Your task to perform on an android device: Open settings on Google Maps Image 0: 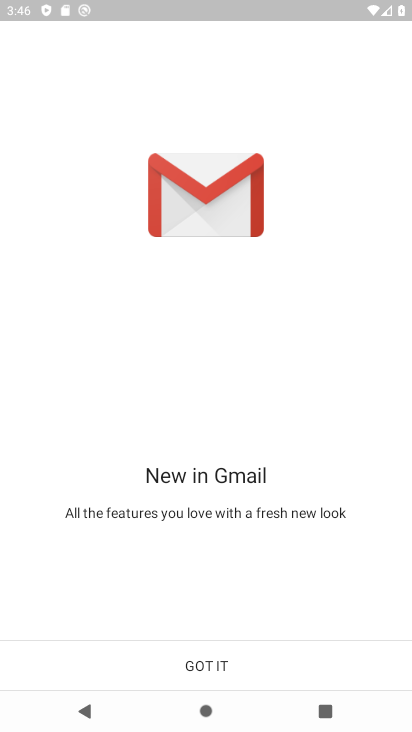
Step 0: press home button
Your task to perform on an android device: Open settings on Google Maps Image 1: 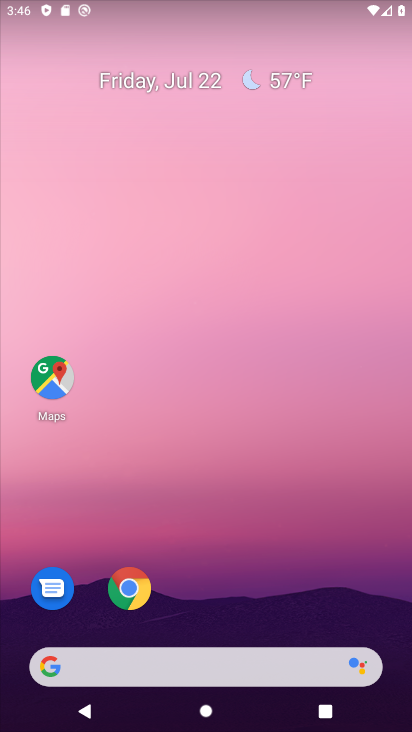
Step 1: click (55, 390)
Your task to perform on an android device: Open settings on Google Maps Image 2: 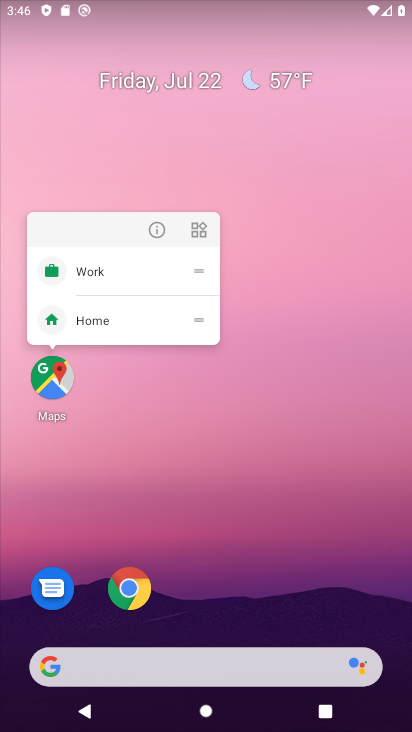
Step 2: click (55, 390)
Your task to perform on an android device: Open settings on Google Maps Image 3: 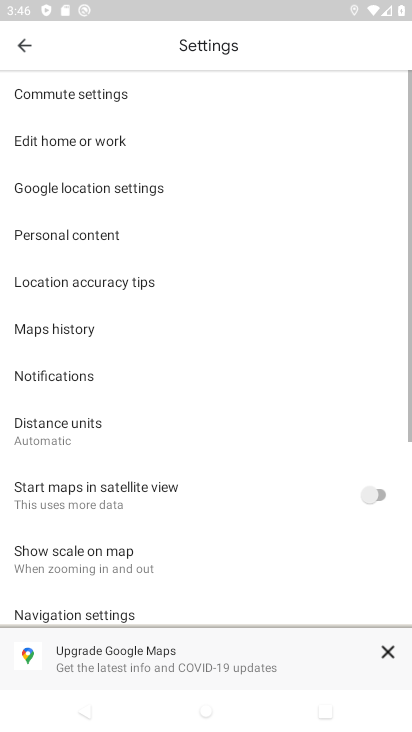
Step 3: click (25, 38)
Your task to perform on an android device: Open settings on Google Maps Image 4: 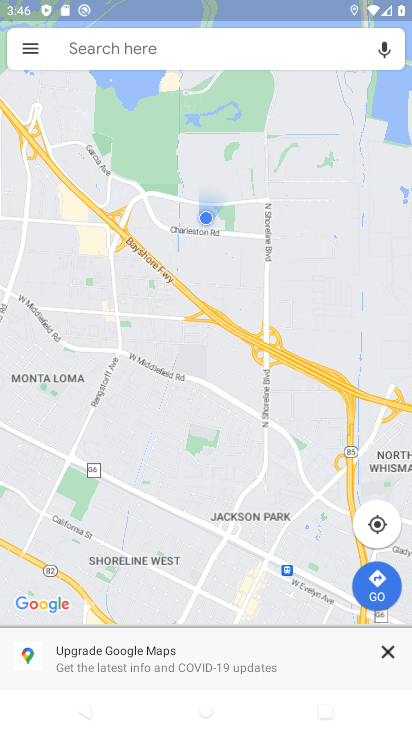
Step 4: click (28, 39)
Your task to perform on an android device: Open settings on Google Maps Image 5: 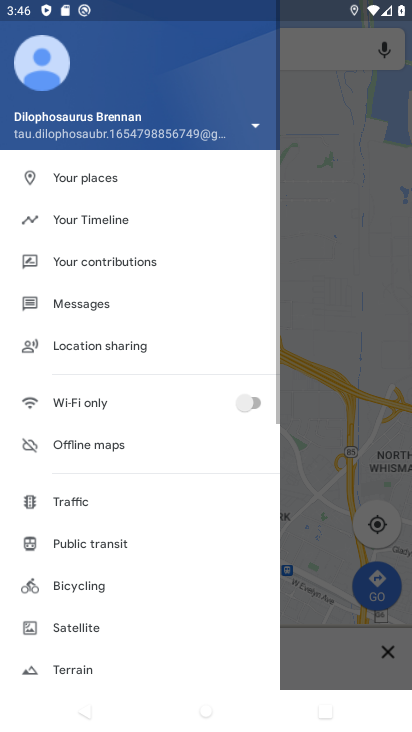
Step 5: drag from (129, 573) to (129, 149)
Your task to perform on an android device: Open settings on Google Maps Image 6: 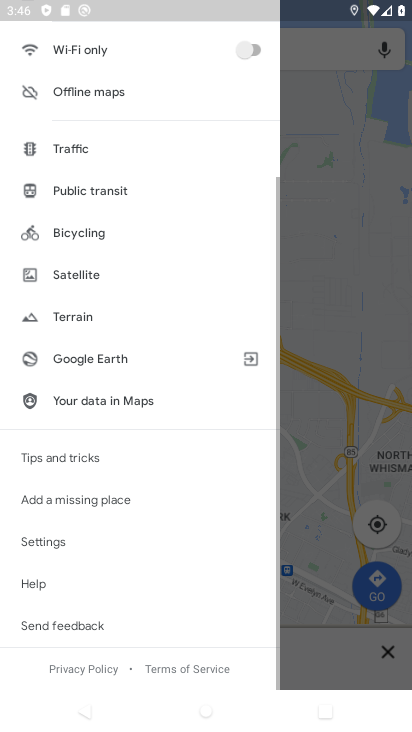
Step 6: click (47, 539)
Your task to perform on an android device: Open settings on Google Maps Image 7: 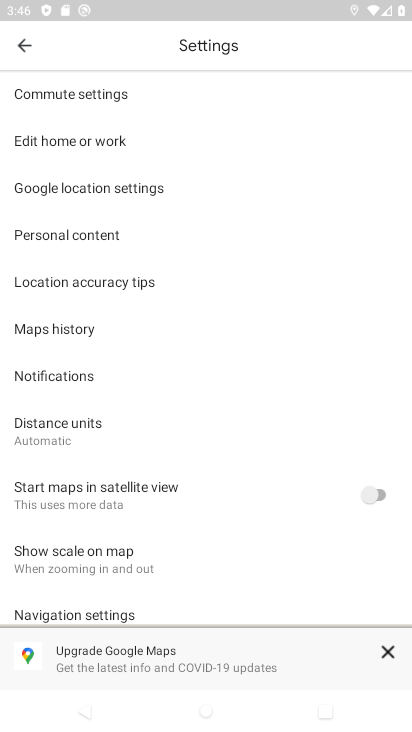
Step 7: task complete